Your task to perform on an android device: turn pop-ups off in chrome Image 0: 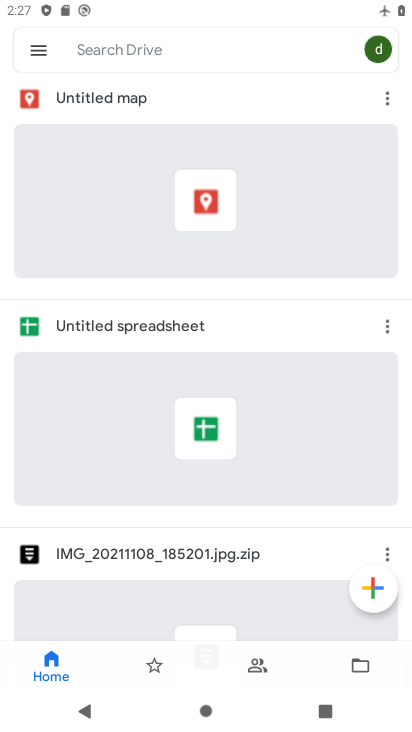
Step 0: press home button
Your task to perform on an android device: turn pop-ups off in chrome Image 1: 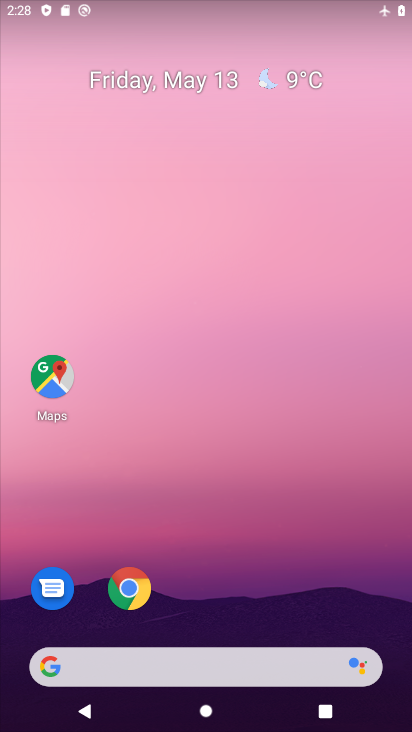
Step 1: click (155, 591)
Your task to perform on an android device: turn pop-ups off in chrome Image 2: 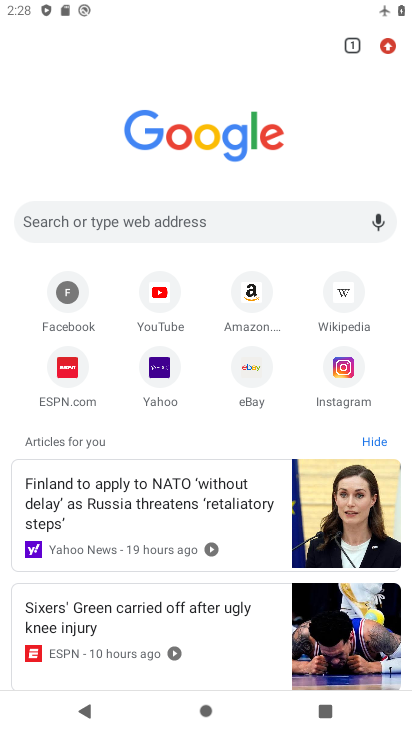
Step 2: drag from (390, 50) to (275, 430)
Your task to perform on an android device: turn pop-ups off in chrome Image 3: 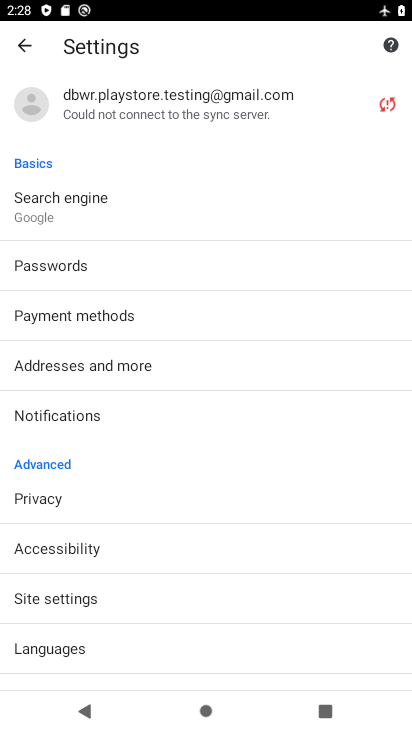
Step 3: click (100, 593)
Your task to perform on an android device: turn pop-ups off in chrome Image 4: 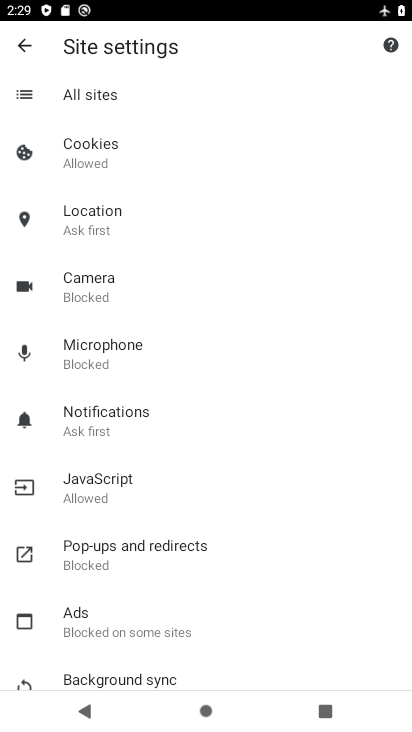
Step 4: click (141, 547)
Your task to perform on an android device: turn pop-ups off in chrome Image 5: 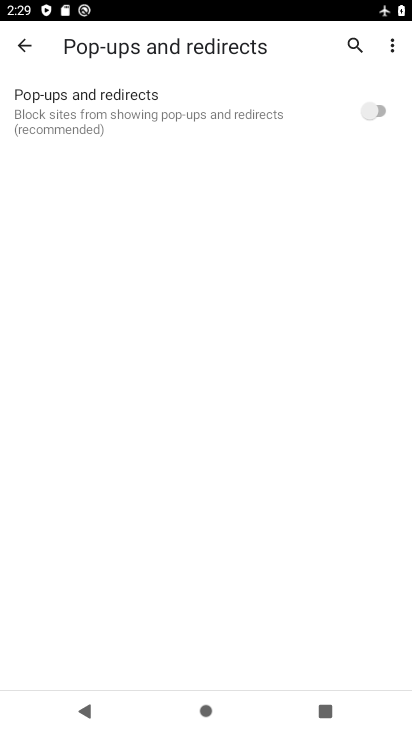
Step 5: task complete